Your task to perform on an android device: add a label to a message in the gmail app Image 0: 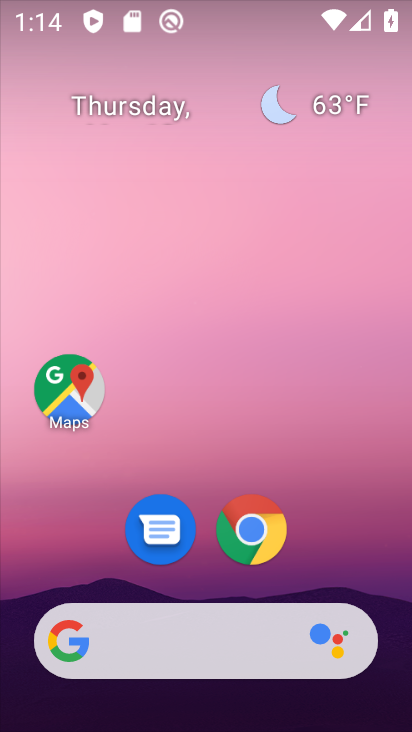
Step 0: drag from (343, 551) to (263, 103)
Your task to perform on an android device: add a label to a message in the gmail app Image 1: 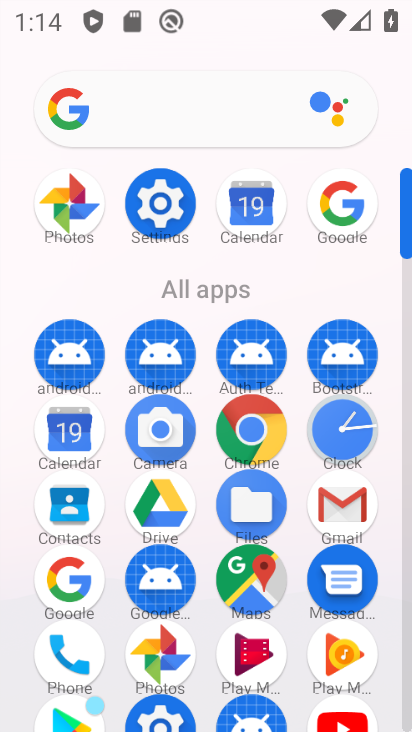
Step 1: click (341, 506)
Your task to perform on an android device: add a label to a message in the gmail app Image 2: 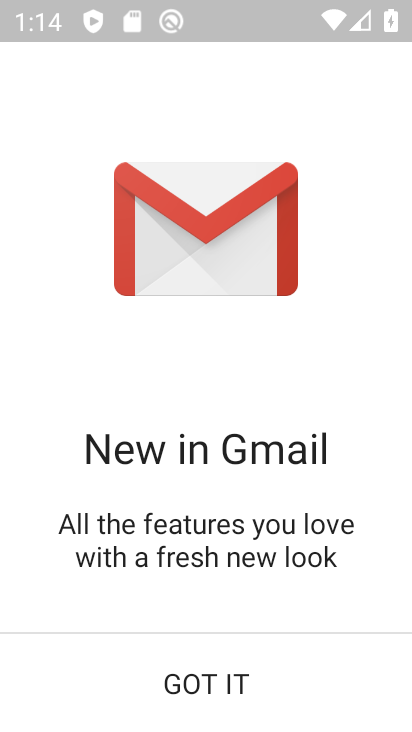
Step 2: click (182, 673)
Your task to perform on an android device: add a label to a message in the gmail app Image 3: 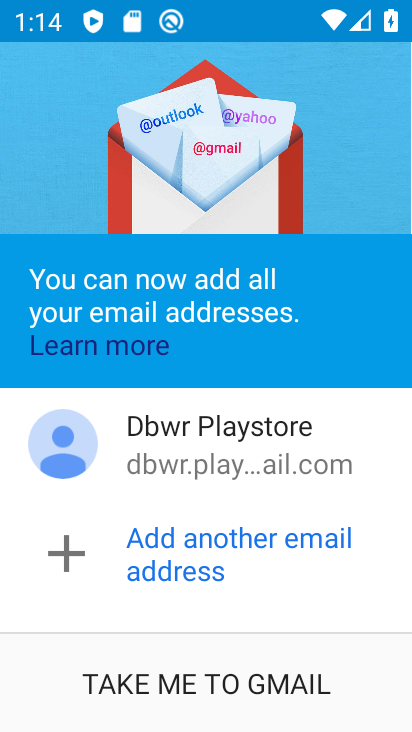
Step 3: click (182, 673)
Your task to perform on an android device: add a label to a message in the gmail app Image 4: 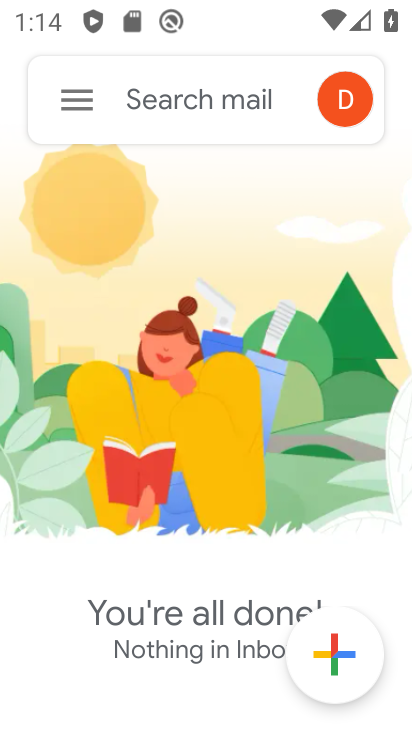
Step 4: click (75, 101)
Your task to perform on an android device: add a label to a message in the gmail app Image 5: 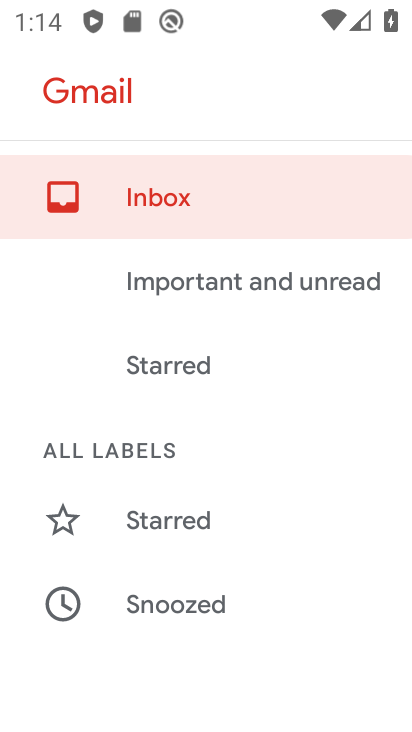
Step 5: drag from (185, 418) to (189, 296)
Your task to perform on an android device: add a label to a message in the gmail app Image 6: 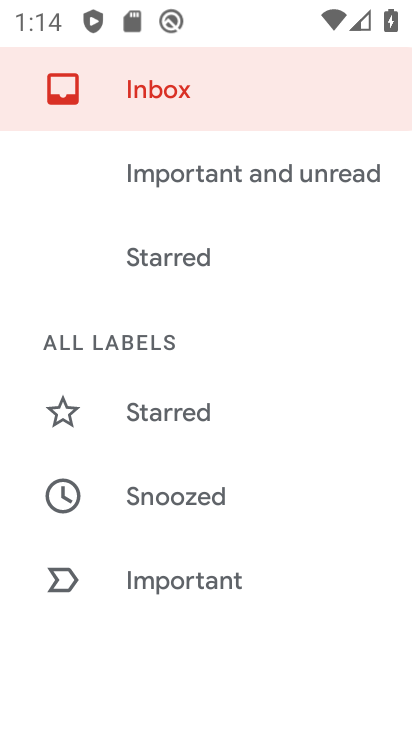
Step 6: drag from (185, 489) to (231, 398)
Your task to perform on an android device: add a label to a message in the gmail app Image 7: 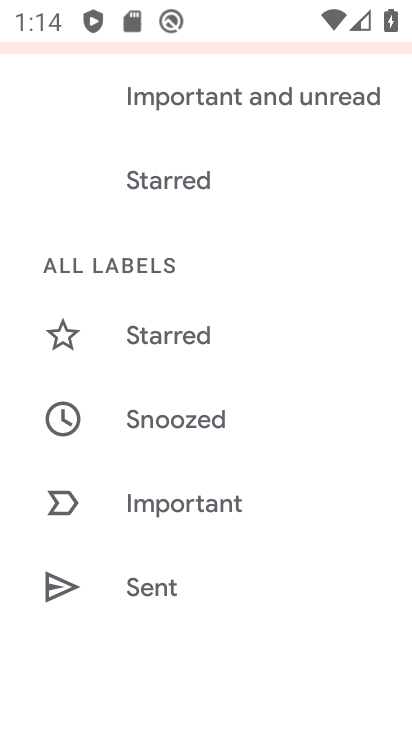
Step 7: drag from (184, 485) to (248, 385)
Your task to perform on an android device: add a label to a message in the gmail app Image 8: 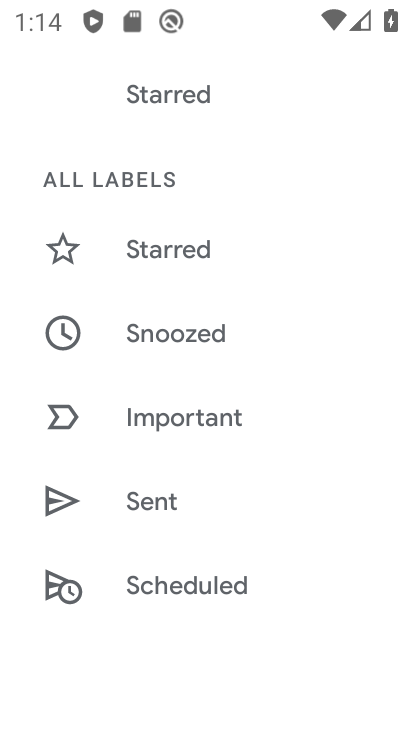
Step 8: drag from (183, 546) to (257, 427)
Your task to perform on an android device: add a label to a message in the gmail app Image 9: 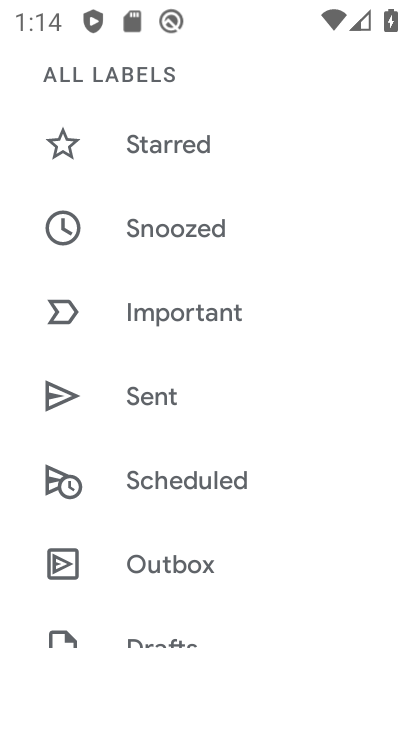
Step 9: drag from (166, 607) to (245, 479)
Your task to perform on an android device: add a label to a message in the gmail app Image 10: 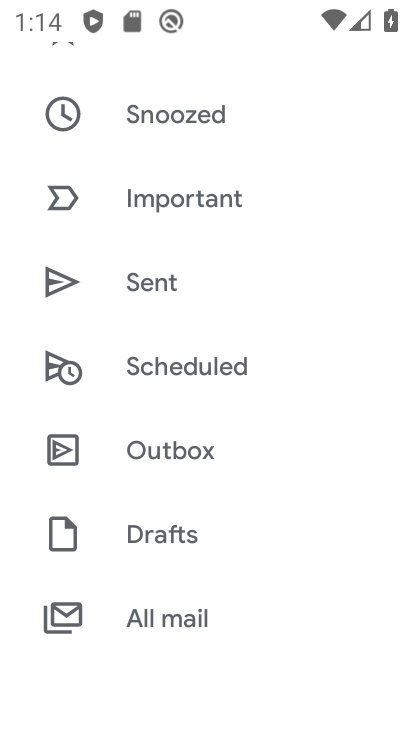
Step 10: drag from (161, 562) to (254, 431)
Your task to perform on an android device: add a label to a message in the gmail app Image 11: 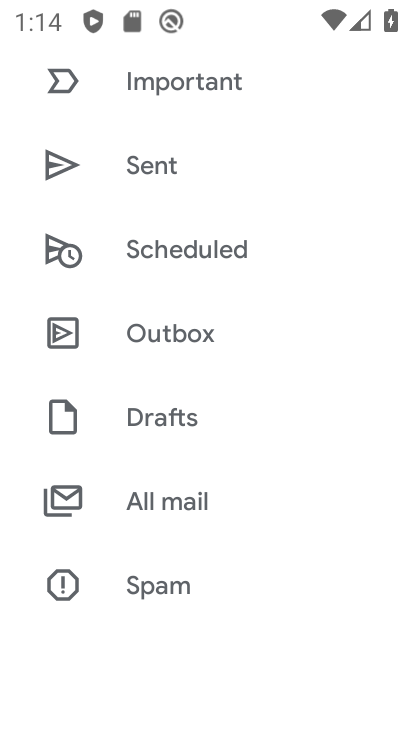
Step 11: click (192, 499)
Your task to perform on an android device: add a label to a message in the gmail app Image 12: 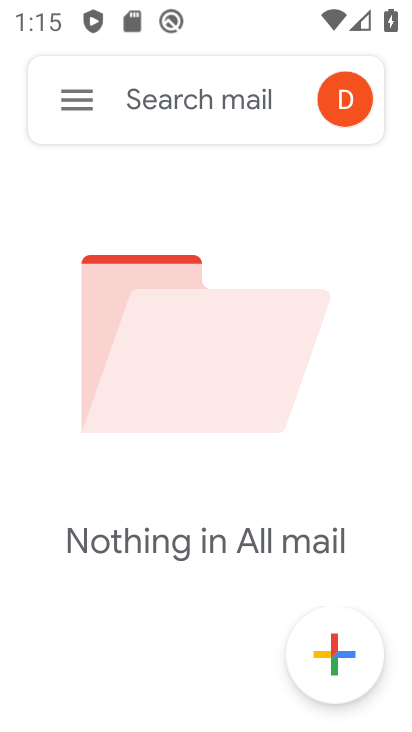
Step 12: task complete